Your task to perform on an android device: visit the assistant section in the google photos Image 0: 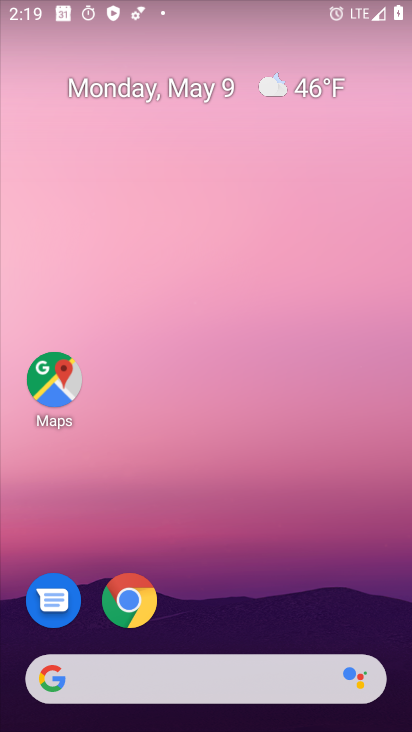
Step 0: drag from (131, 673) to (200, 131)
Your task to perform on an android device: visit the assistant section in the google photos Image 1: 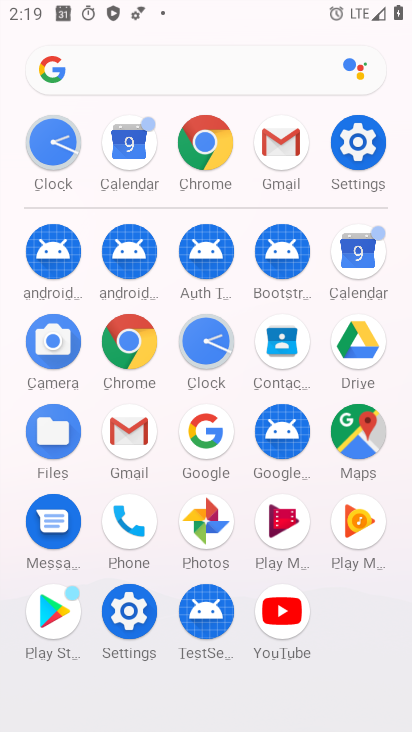
Step 1: click (220, 539)
Your task to perform on an android device: visit the assistant section in the google photos Image 2: 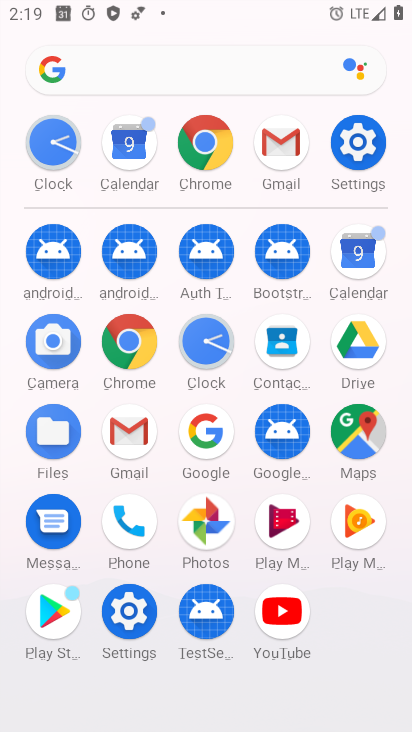
Step 2: click (220, 539)
Your task to perform on an android device: visit the assistant section in the google photos Image 3: 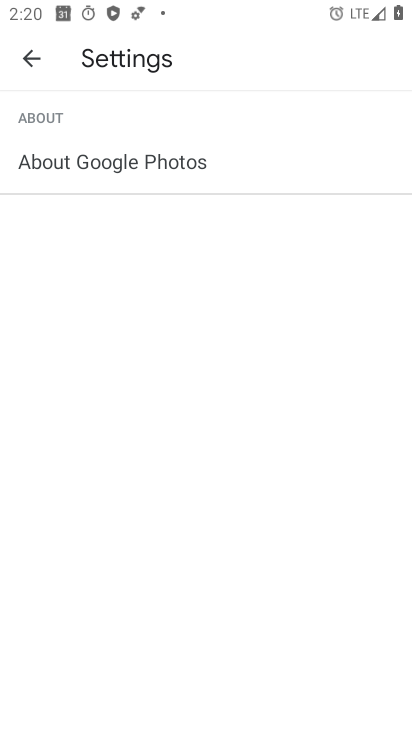
Step 3: click (34, 53)
Your task to perform on an android device: visit the assistant section in the google photos Image 4: 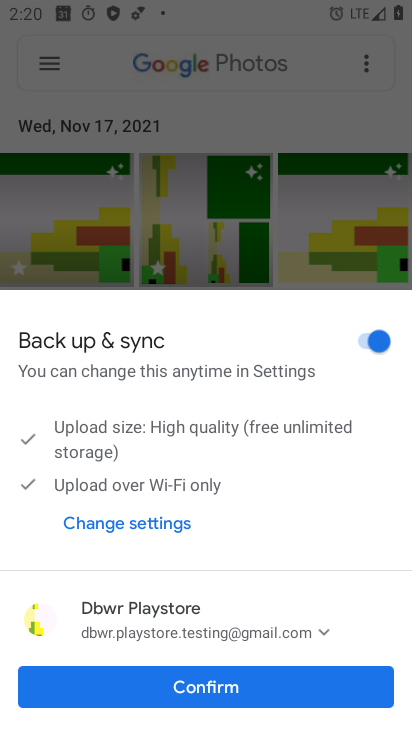
Step 4: drag from (275, 618) to (253, 679)
Your task to perform on an android device: visit the assistant section in the google photos Image 5: 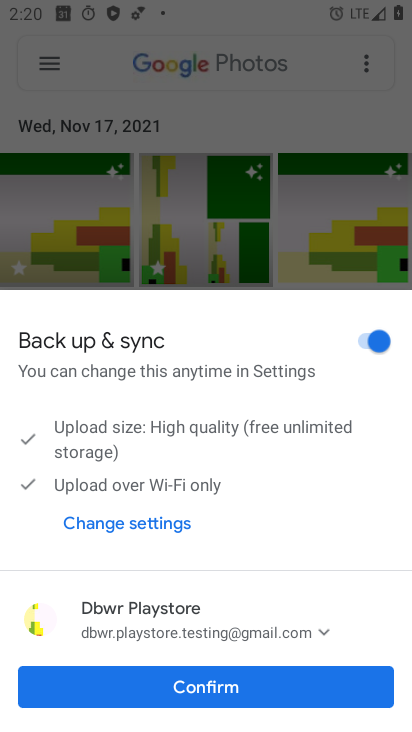
Step 5: click (253, 679)
Your task to perform on an android device: visit the assistant section in the google photos Image 6: 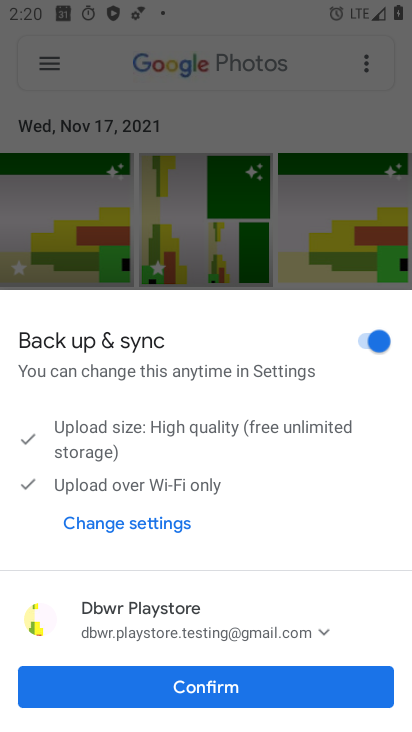
Step 6: click (253, 679)
Your task to perform on an android device: visit the assistant section in the google photos Image 7: 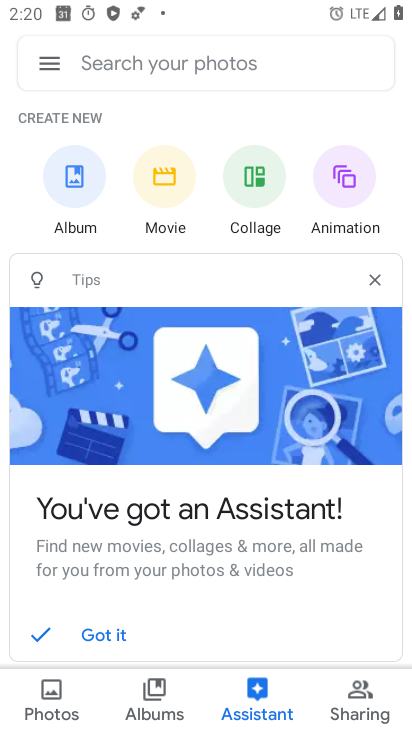
Step 7: task complete